Your task to perform on an android device: What's the latest news in astrophysics? Image 0: 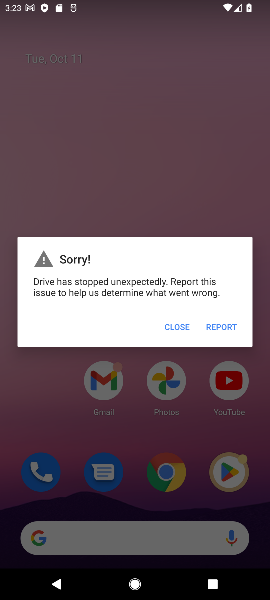
Step 0: press home button
Your task to perform on an android device: What's the latest news in astrophysics? Image 1: 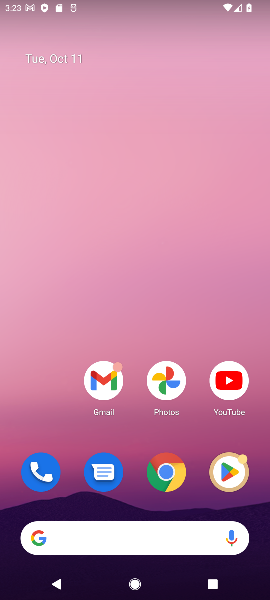
Step 1: click (107, 533)
Your task to perform on an android device: What's the latest news in astrophysics? Image 2: 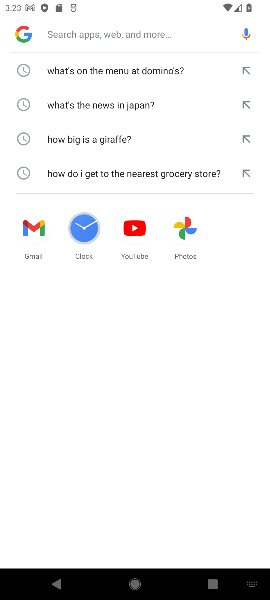
Step 2: type "What's the latest news in astrophysics?"
Your task to perform on an android device: What's the latest news in astrophysics? Image 3: 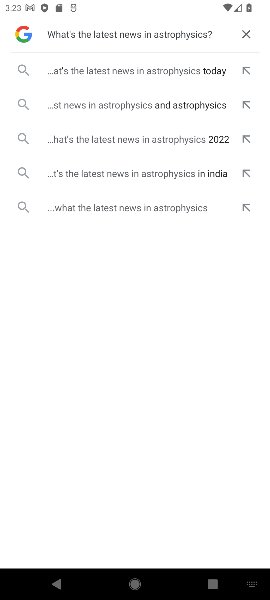
Step 3: click (154, 105)
Your task to perform on an android device: What's the latest news in astrophysics? Image 4: 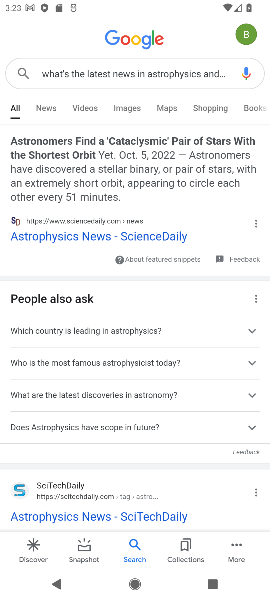
Step 4: task complete